Your task to perform on an android device: toggle notifications settings in the gmail app Image 0: 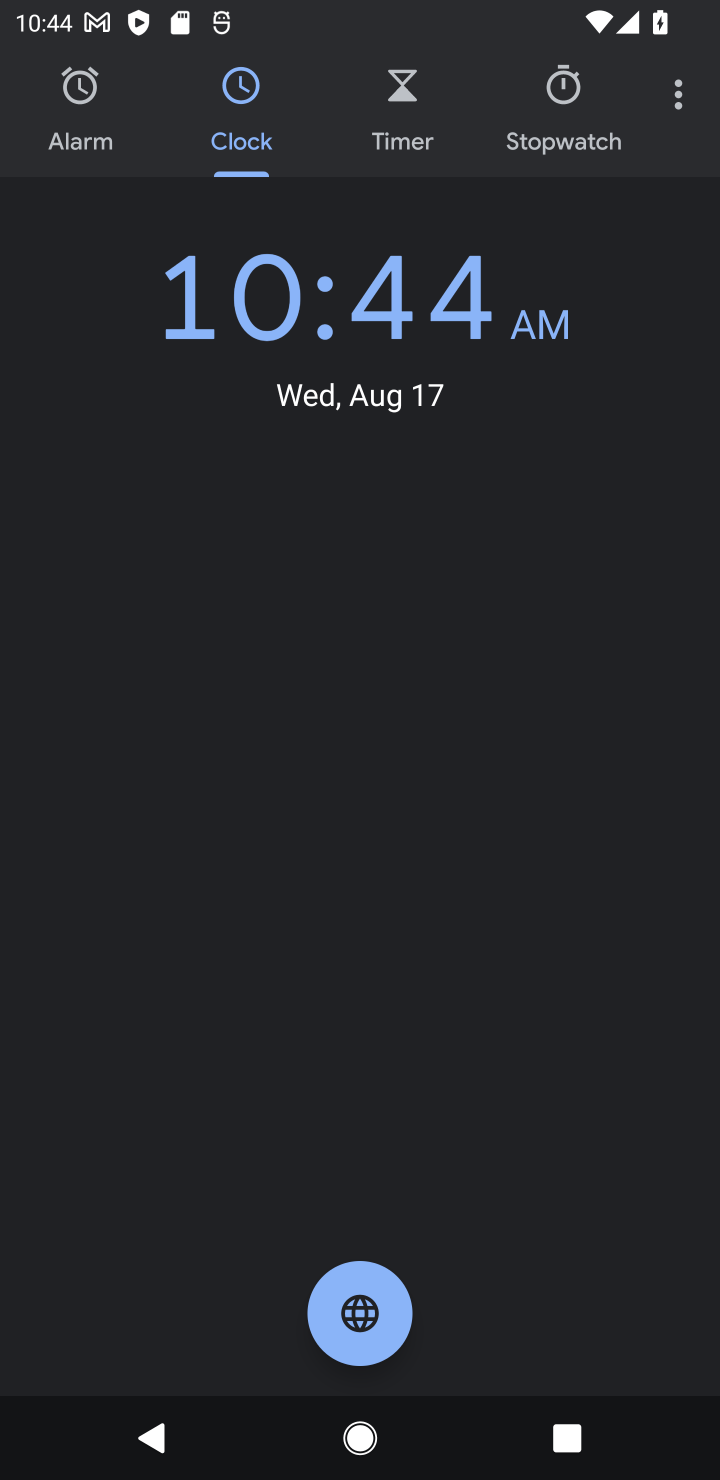
Step 0: press home button
Your task to perform on an android device: toggle notifications settings in the gmail app Image 1: 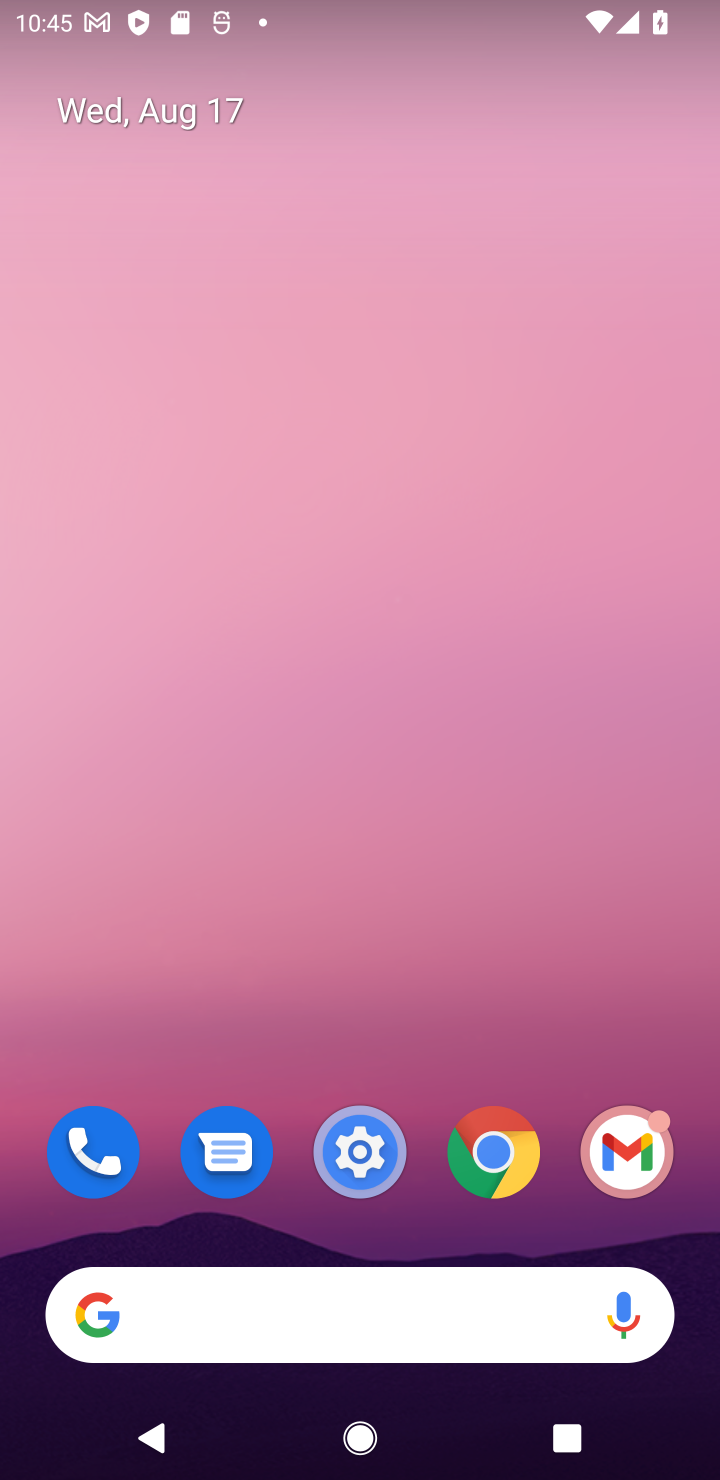
Step 1: drag from (558, 1205) to (458, 40)
Your task to perform on an android device: toggle notifications settings in the gmail app Image 2: 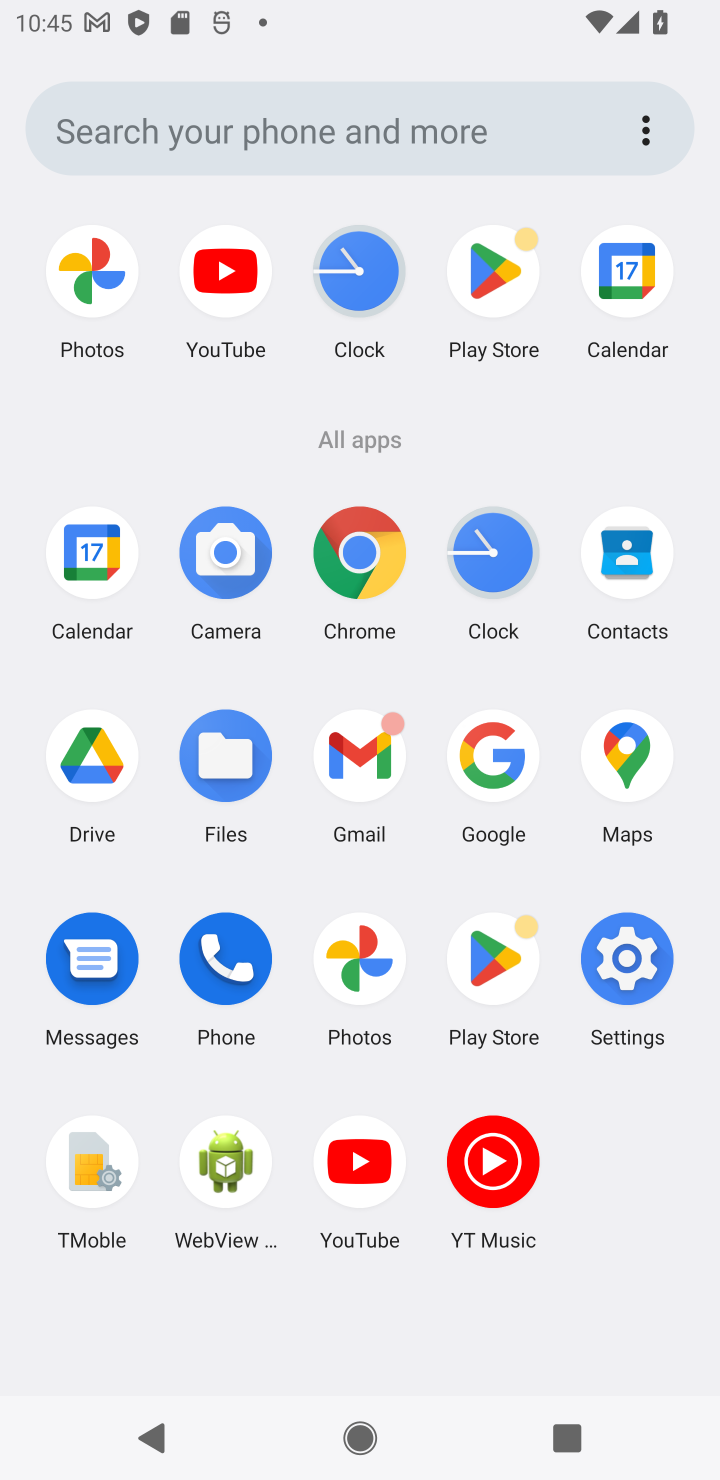
Step 2: click (399, 743)
Your task to perform on an android device: toggle notifications settings in the gmail app Image 3: 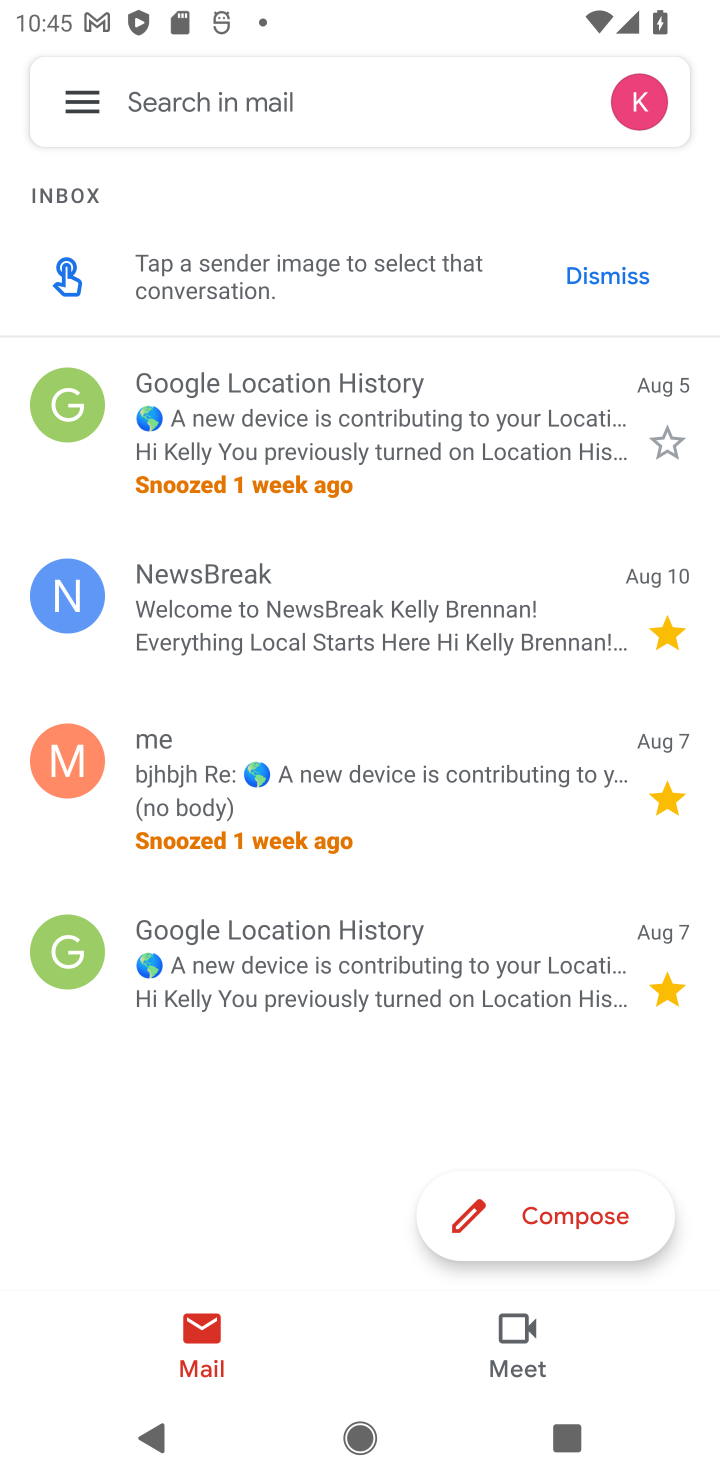
Step 3: click (52, 94)
Your task to perform on an android device: toggle notifications settings in the gmail app Image 4: 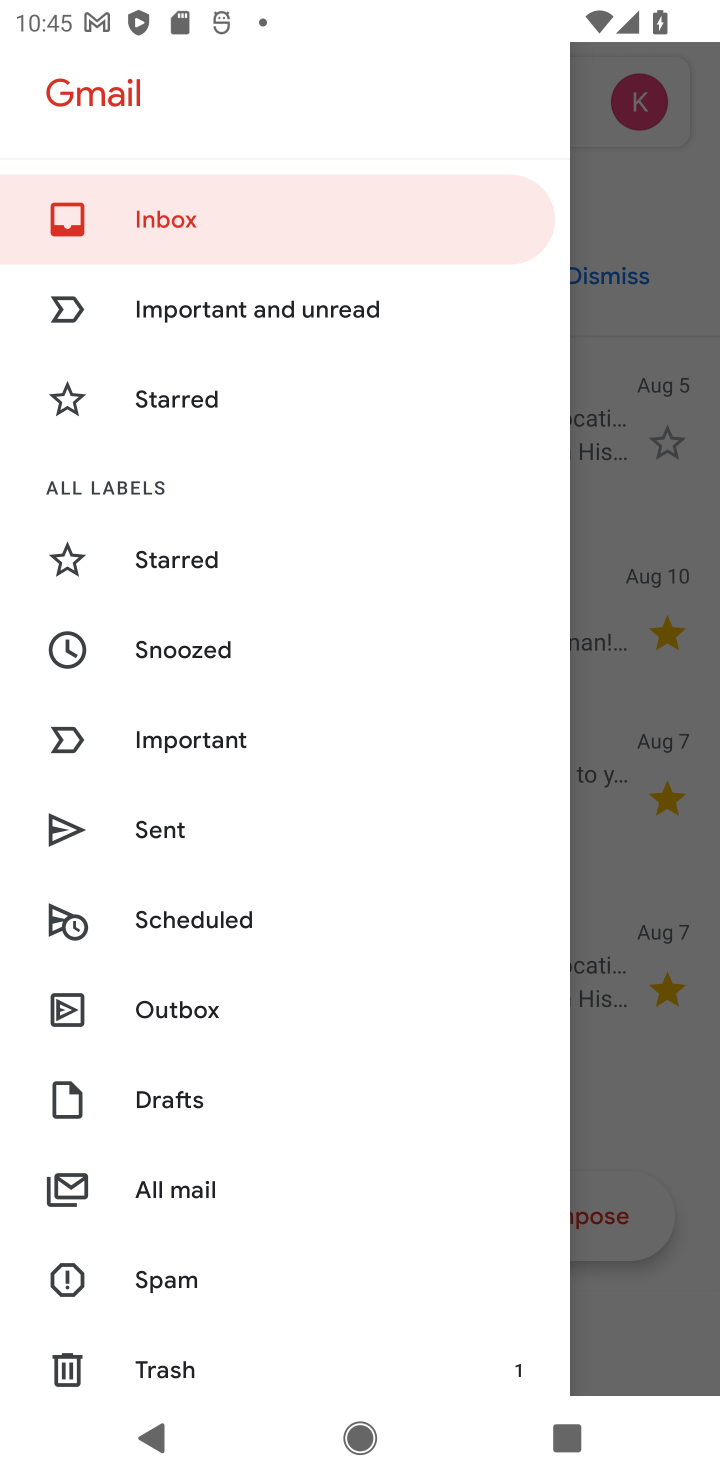
Step 4: drag from (284, 1343) to (241, 50)
Your task to perform on an android device: toggle notifications settings in the gmail app Image 5: 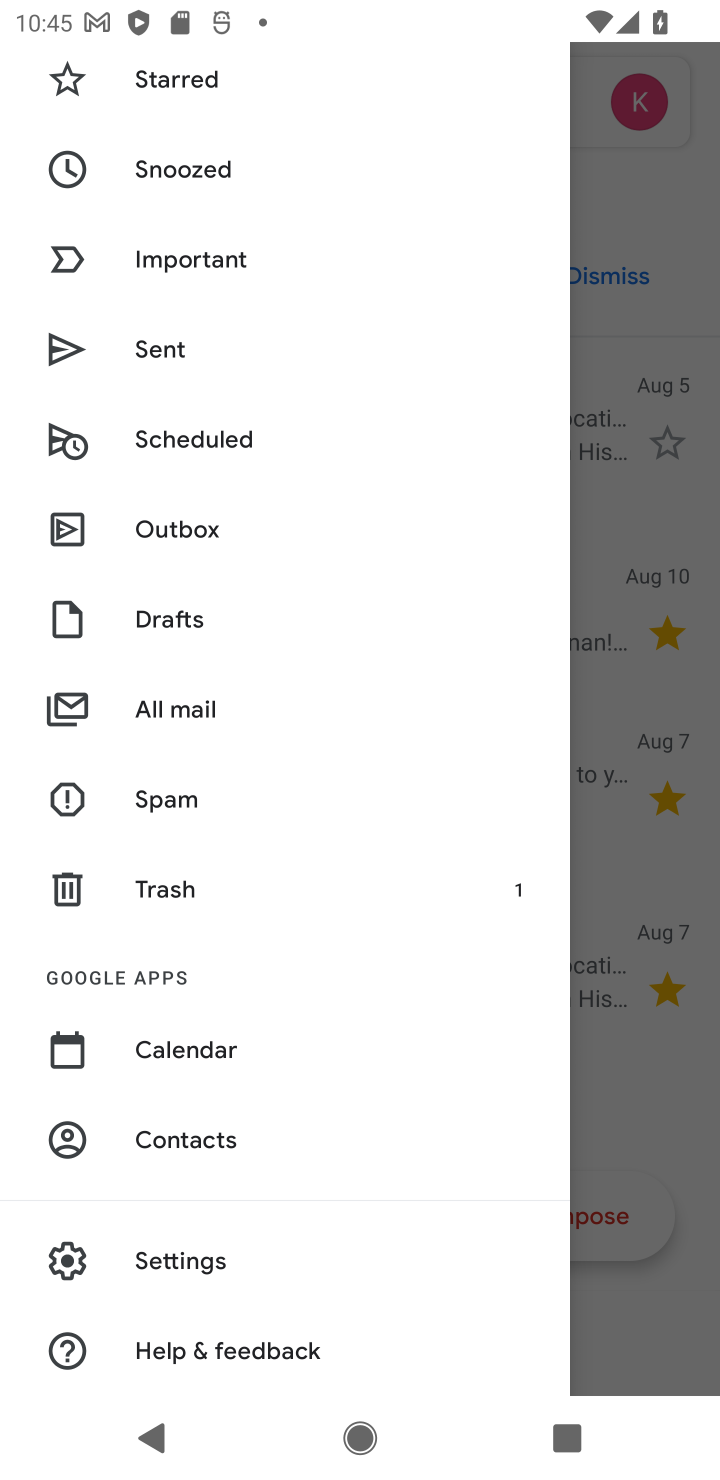
Step 5: click (156, 1262)
Your task to perform on an android device: toggle notifications settings in the gmail app Image 6: 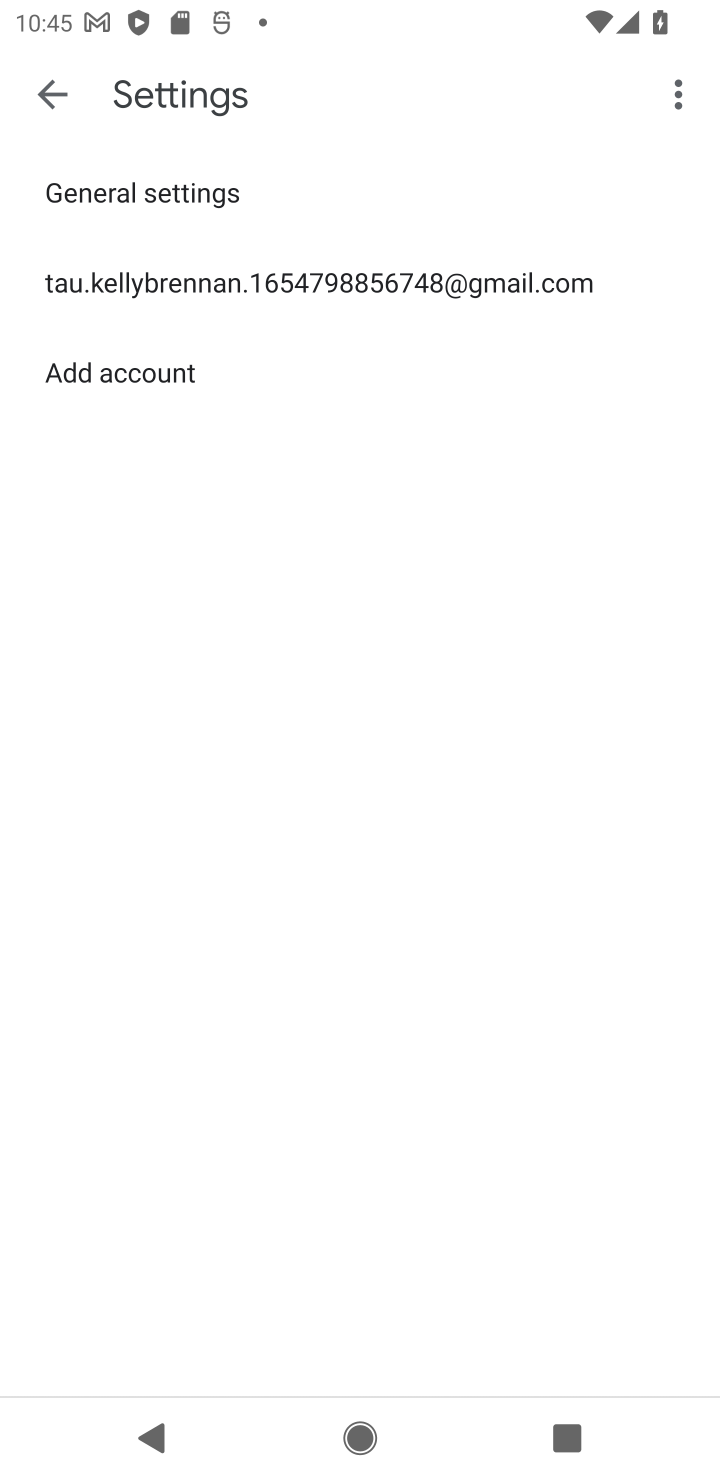
Step 6: click (358, 275)
Your task to perform on an android device: toggle notifications settings in the gmail app Image 7: 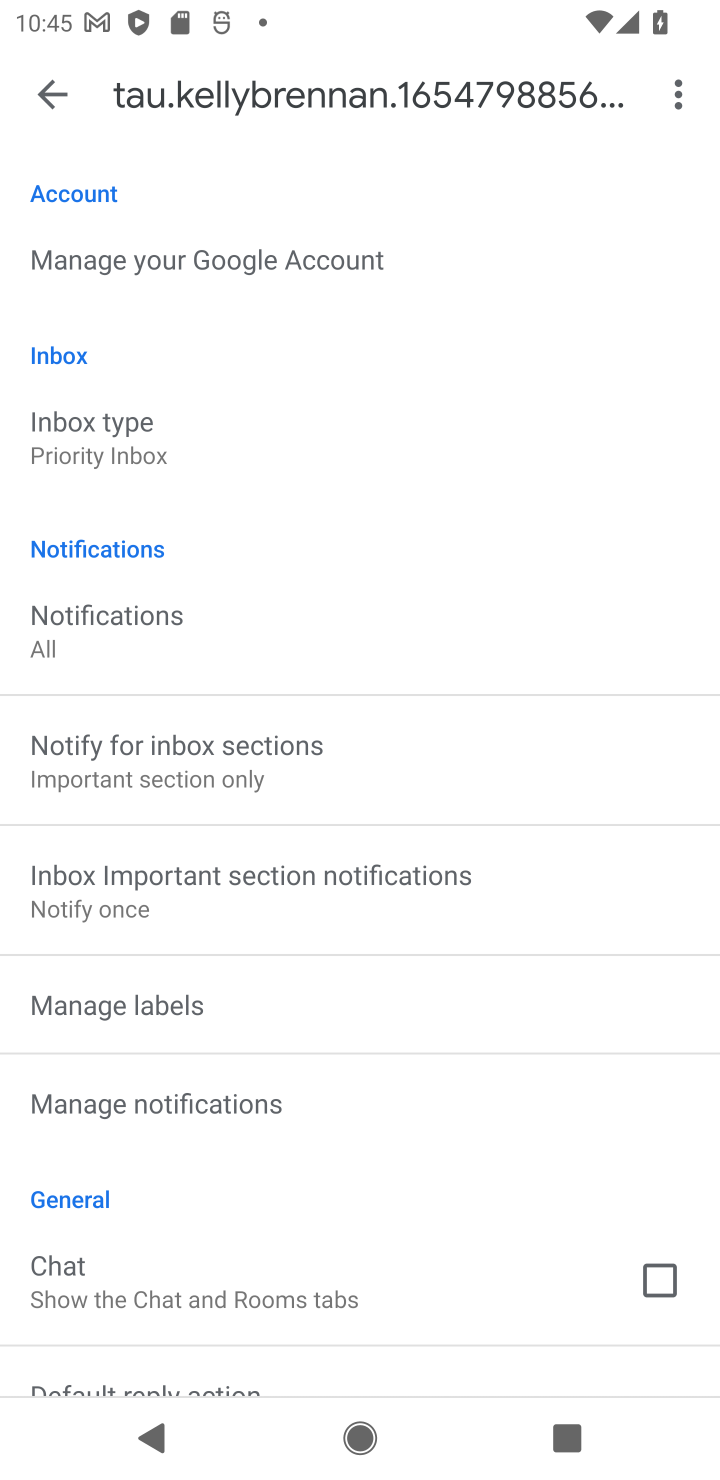
Step 7: click (104, 634)
Your task to perform on an android device: toggle notifications settings in the gmail app Image 8: 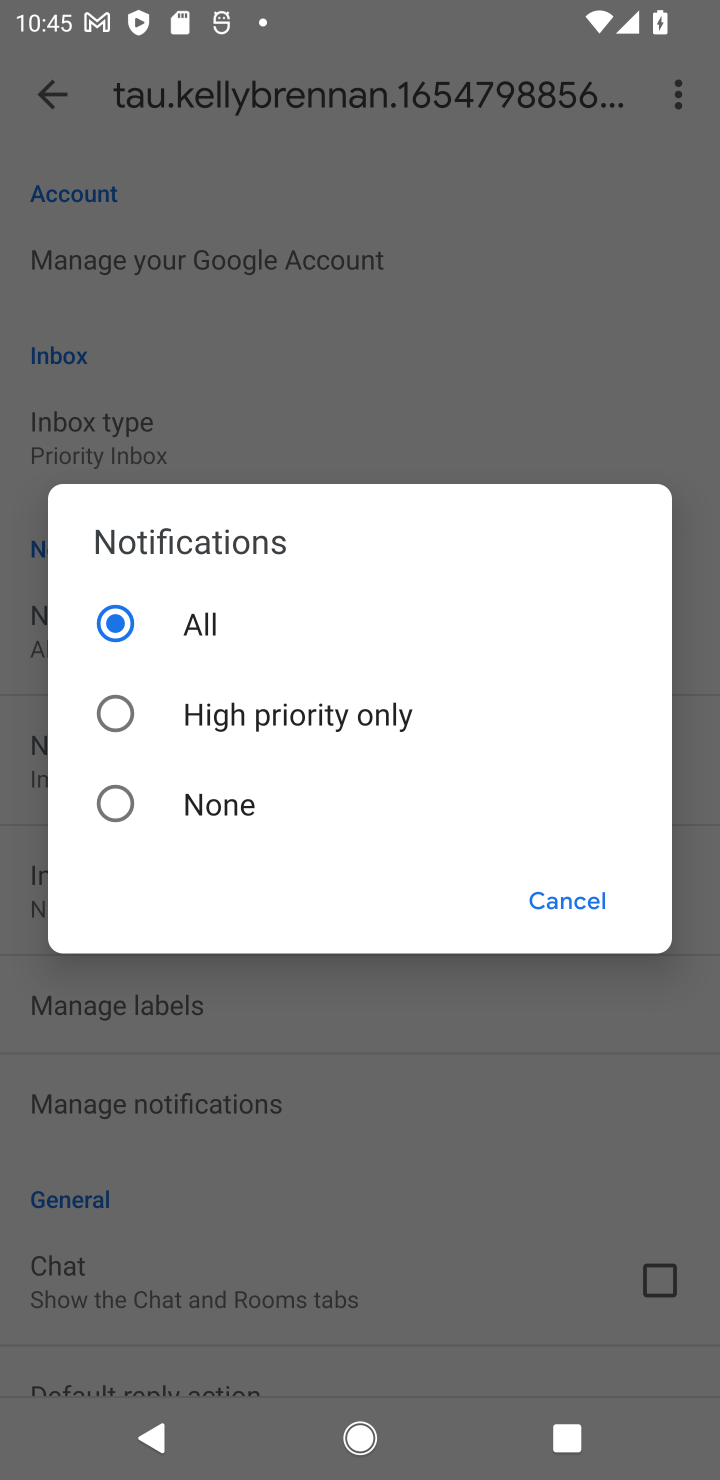
Step 8: click (223, 824)
Your task to perform on an android device: toggle notifications settings in the gmail app Image 9: 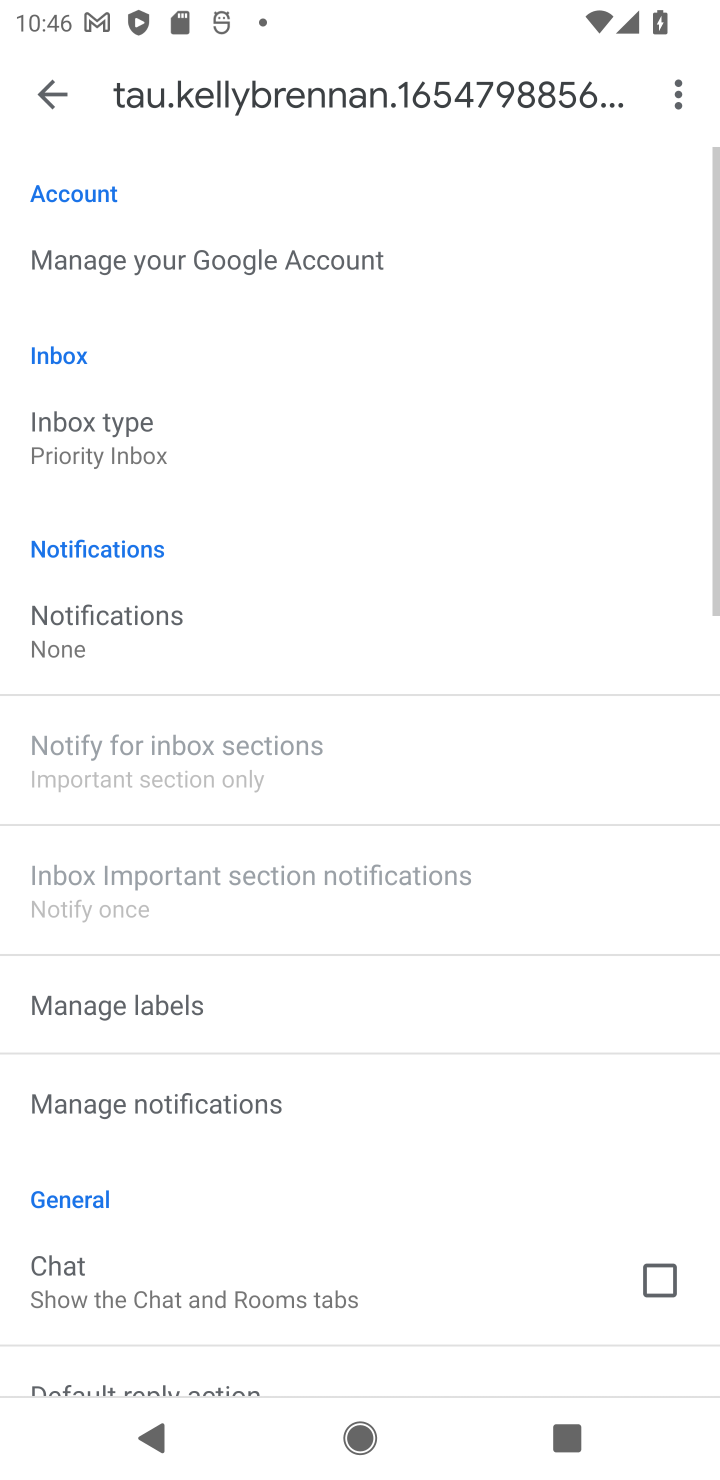
Step 9: task complete